Your task to perform on an android device: Clear all items from cart on amazon.com. Search for "bose soundlink" on amazon.com, select the first entry, and add it to the cart. Image 0: 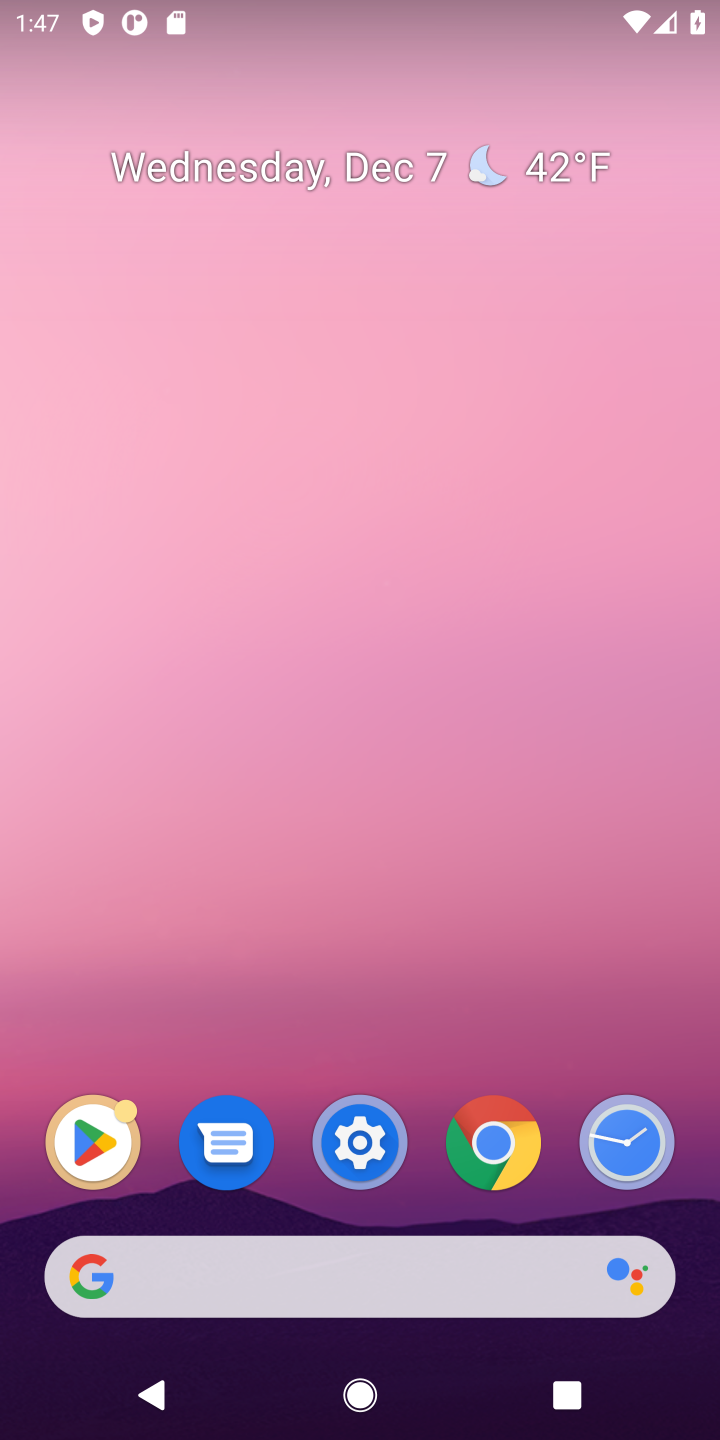
Step 0: click (430, 1225)
Your task to perform on an android device: Clear all items from cart on amazon.com. Search for "bose soundlink" on amazon.com, select the first entry, and add it to the cart. Image 1: 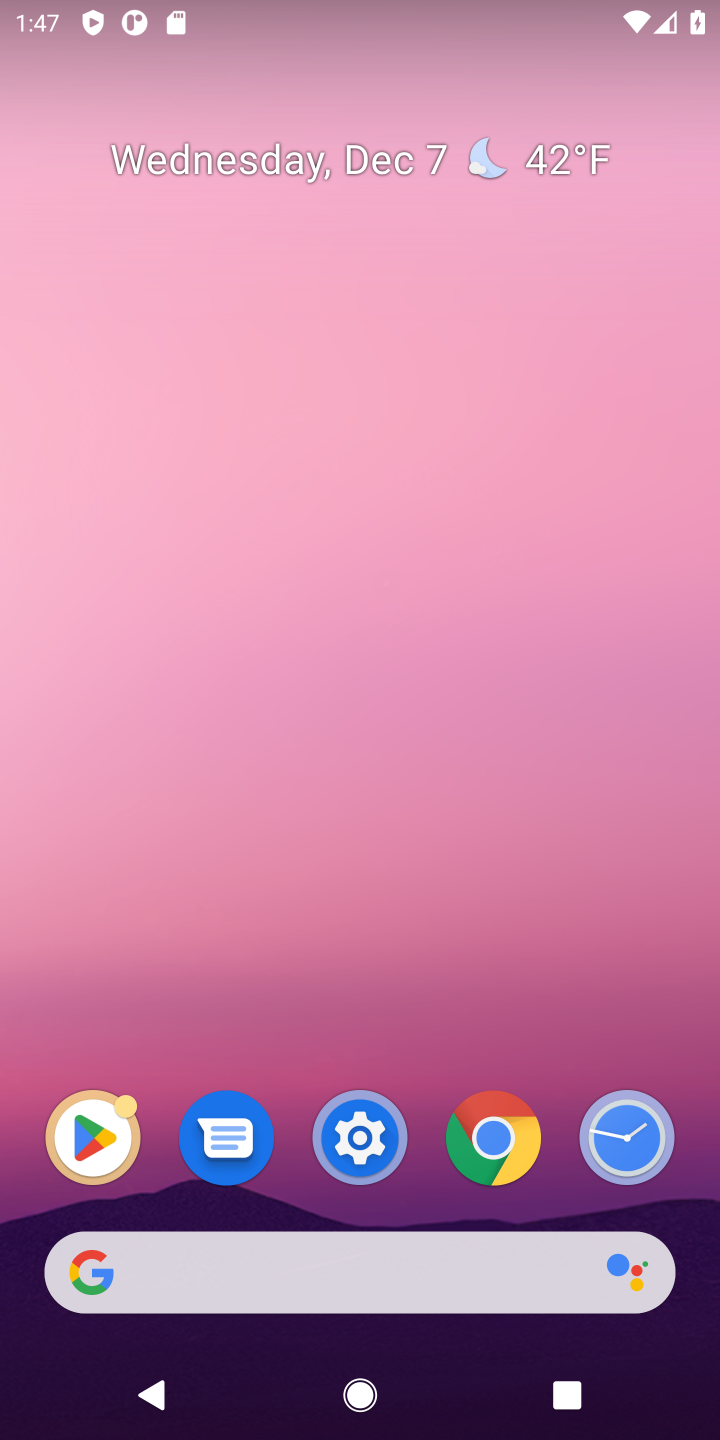
Step 1: press home button
Your task to perform on an android device: Clear all items from cart on amazon.com. Search for "bose soundlink" on amazon.com, select the first entry, and add it to the cart. Image 2: 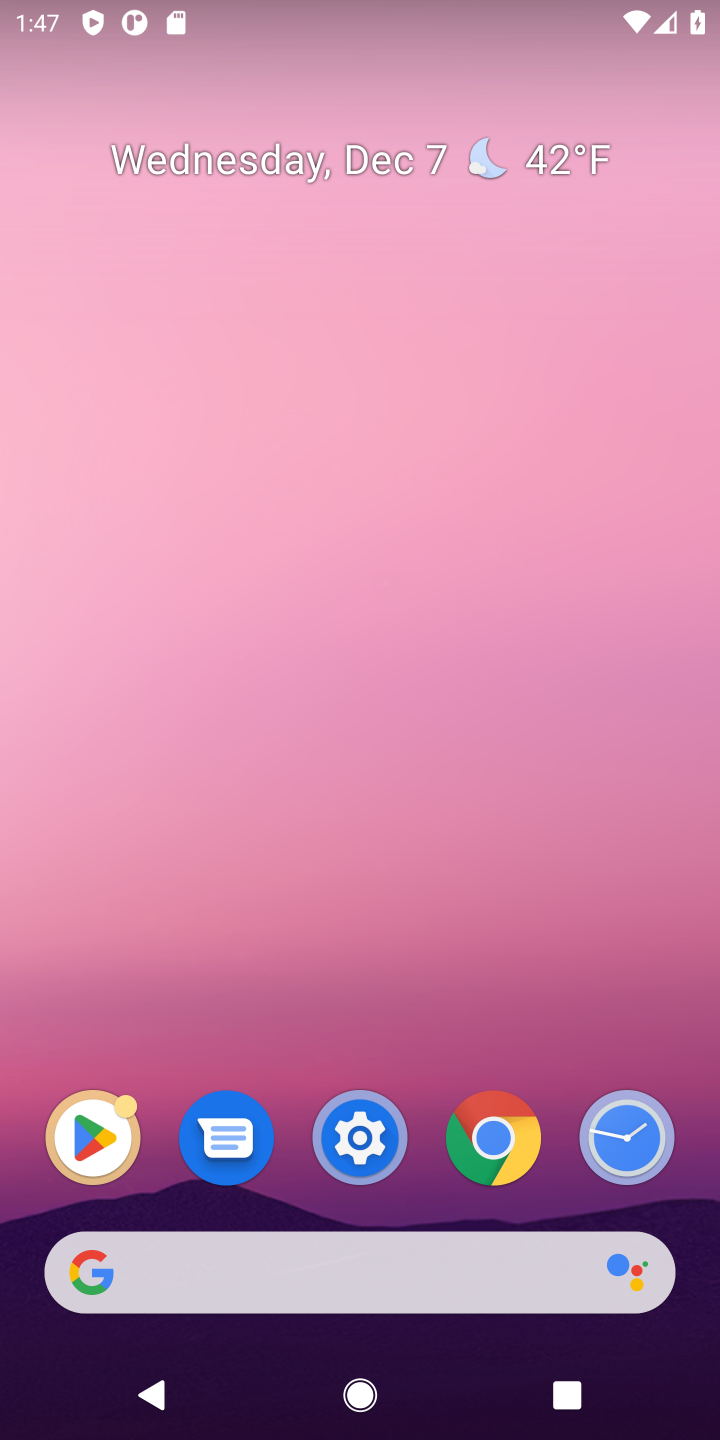
Step 2: click (321, 1263)
Your task to perform on an android device: Clear all items from cart on amazon.com. Search for "bose soundlink" on amazon.com, select the first entry, and add it to the cart. Image 3: 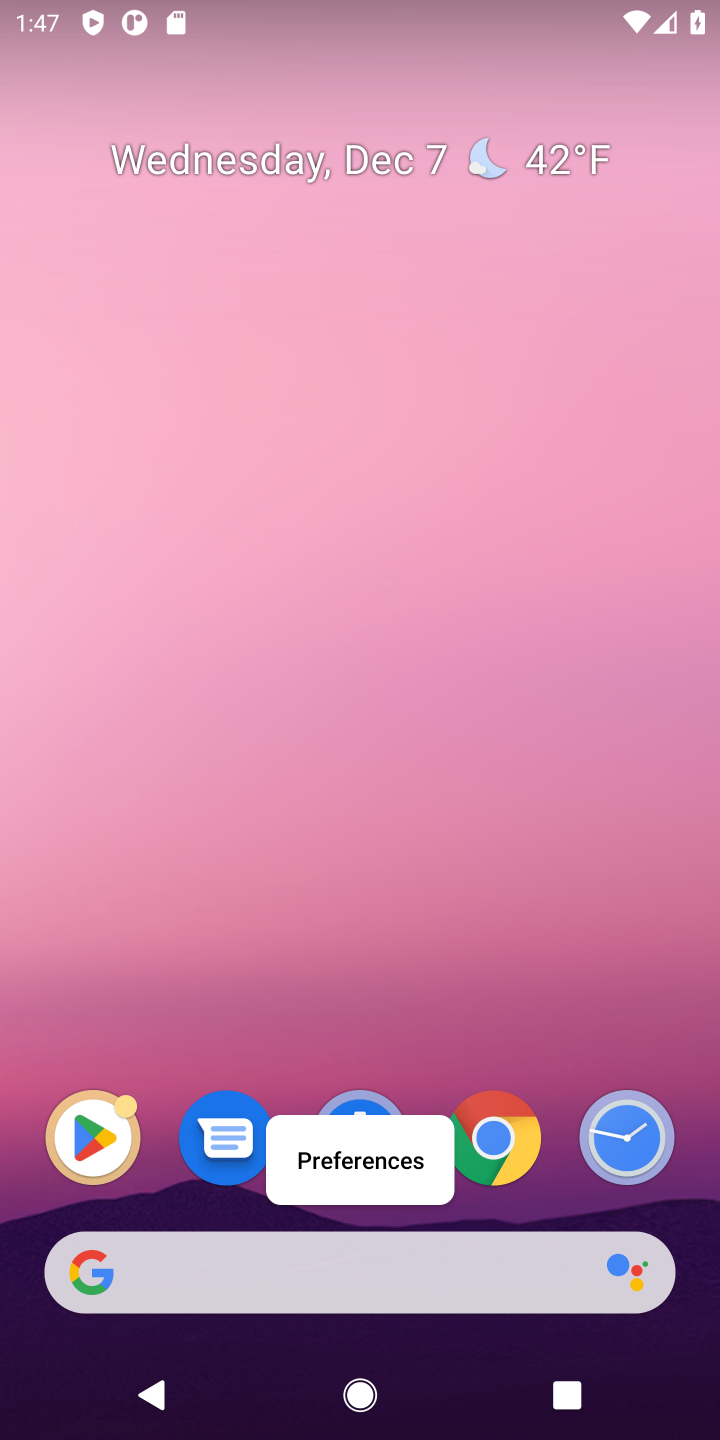
Step 3: click (308, 1275)
Your task to perform on an android device: Clear all items from cart on amazon.com. Search for "bose soundlink" on amazon.com, select the first entry, and add it to the cart. Image 4: 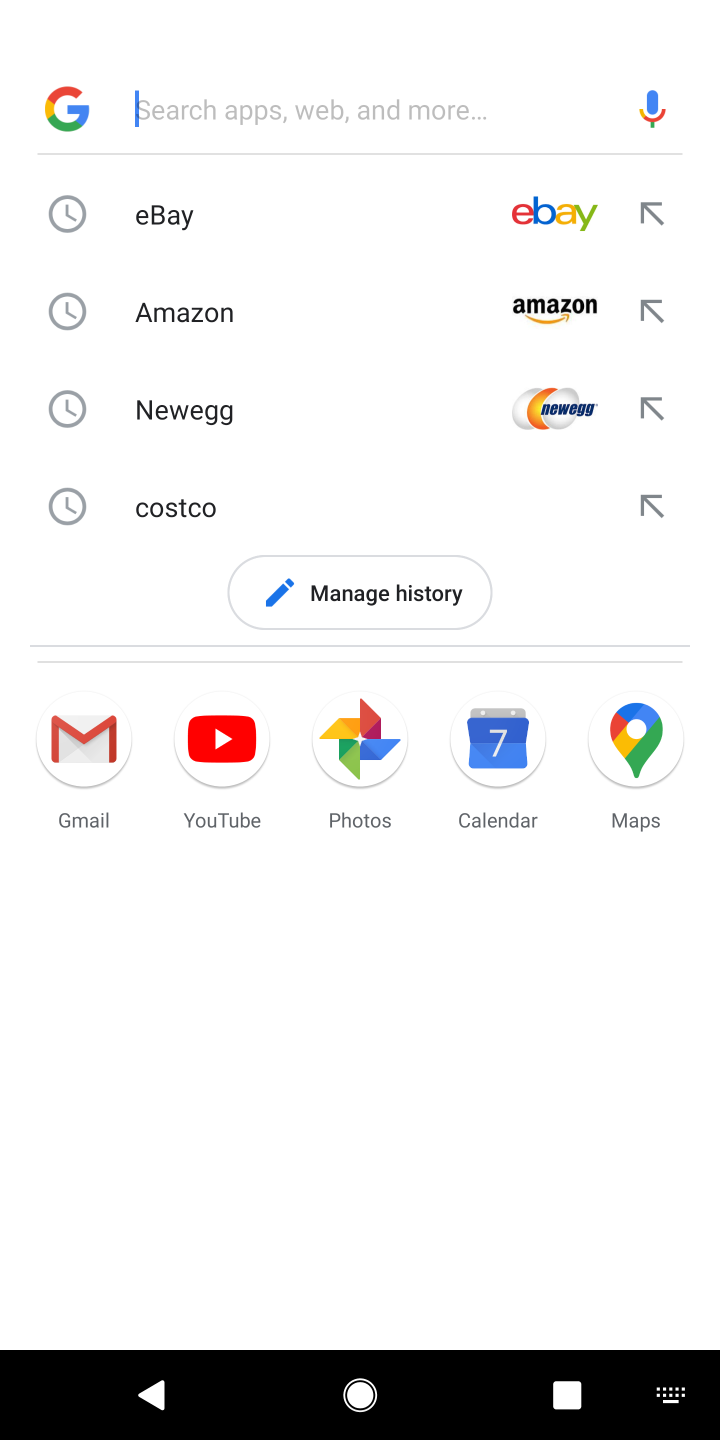
Step 4: type "bose soundlink"
Your task to perform on an android device: Clear all items from cart on amazon.com. Search for "bose soundlink" on amazon.com, select the first entry, and add it to the cart. Image 5: 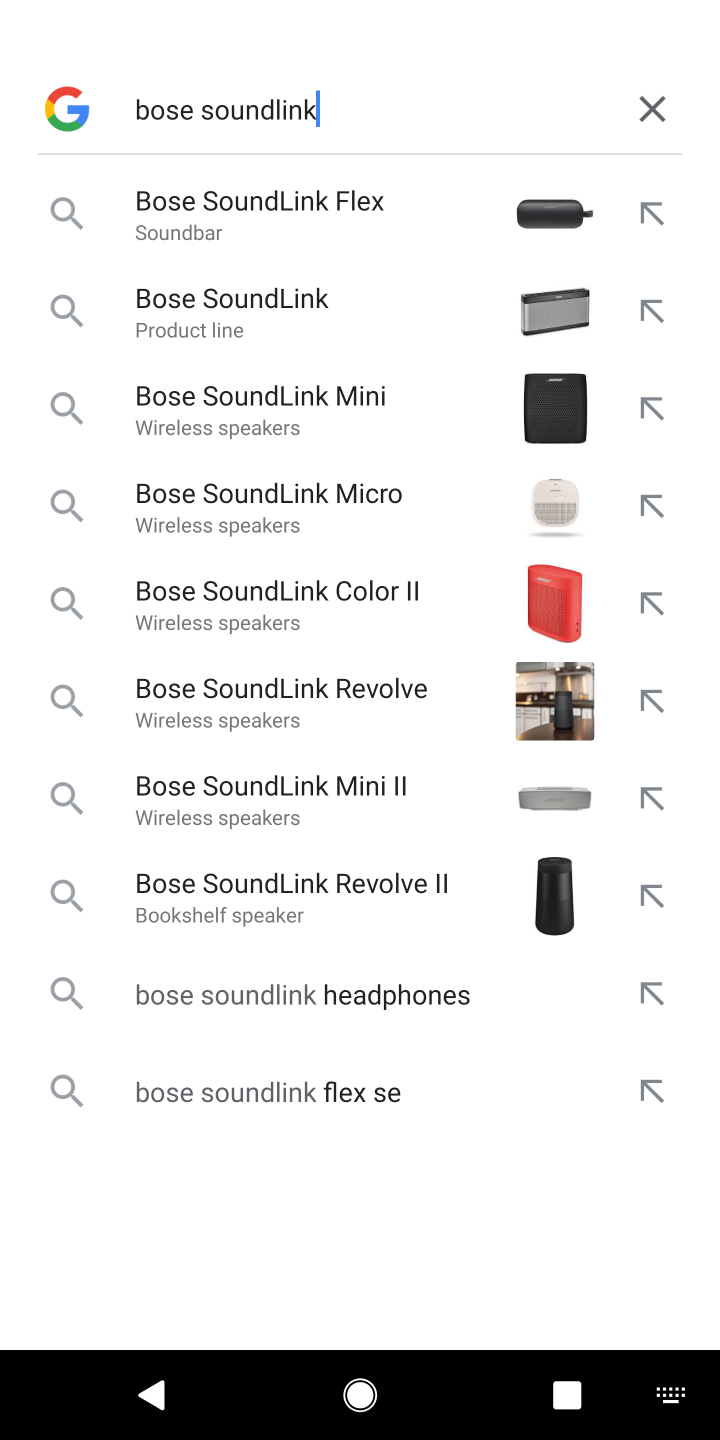
Step 5: click (299, 254)
Your task to perform on an android device: Clear all items from cart on amazon.com. Search for "bose soundlink" on amazon.com, select the first entry, and add it to the cart. Image 6: 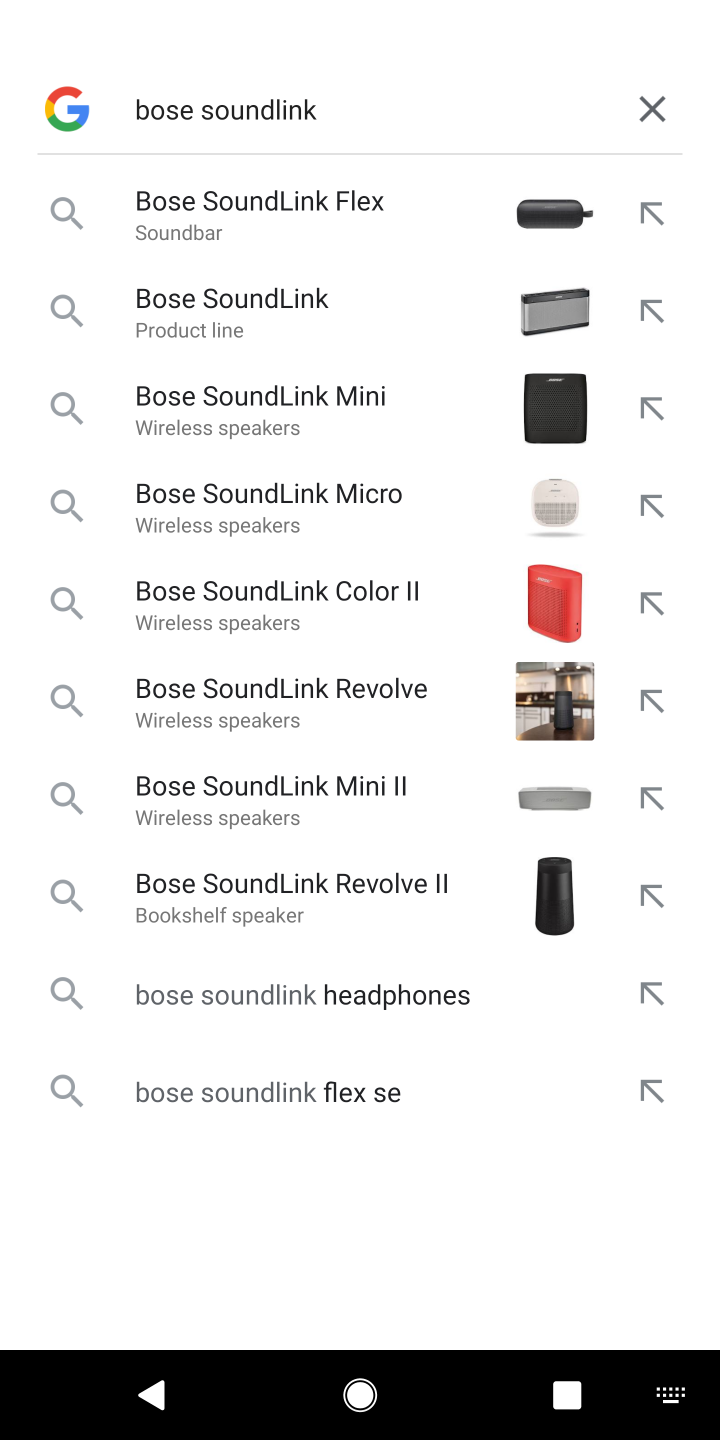
Step 6: click (299, 254)
Your task to perform on an android device: Clear all items from cart on amazon.com. Search for "bose soundlink" on amazon.com, select the first entry, and add it to the cart. Image 7: 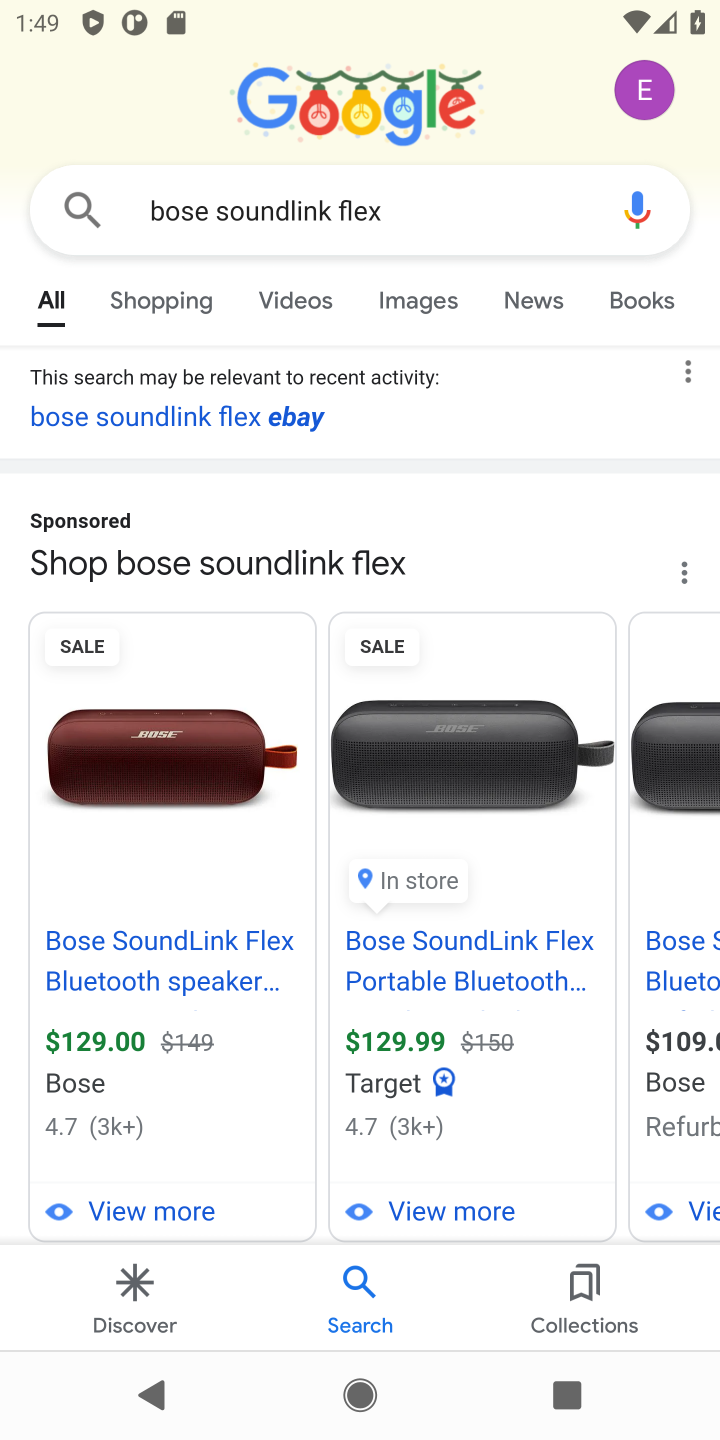
Step 7: task complete